Your task to perform on an android device: Open Google Chrome Image 0: 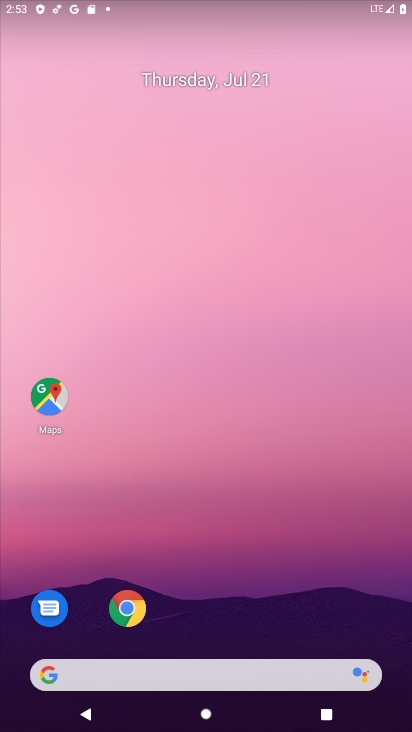
Step 0: click (139, 607)
Your task to perform on an android device: Open Google Chrome Image 1: 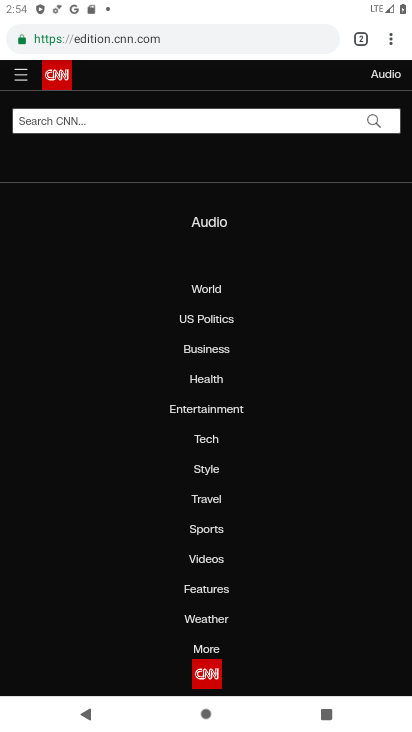
Step 1: task complete